Your task to perform on an android device: Show me productivity apps on the Play Store Image 0: 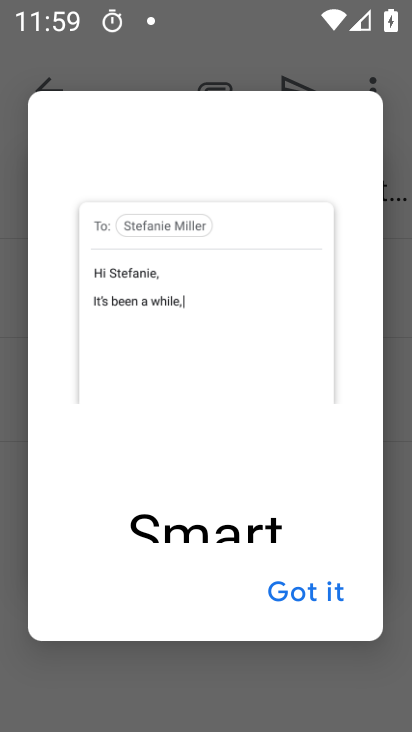
Step 0: press home button
Your task to perform on an android device: Show me productivity apps on the Play Store Image 1: 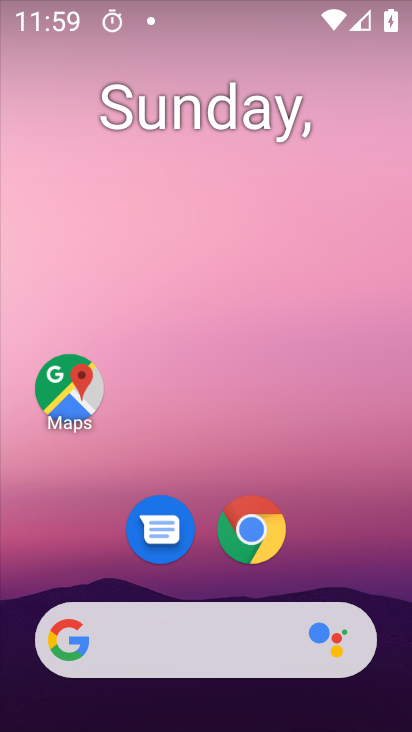
Step 1: drag from (372, 573) to (367, 186)
Your task to perform on an android device: Show me productivity apps on the Play Store Image 2: 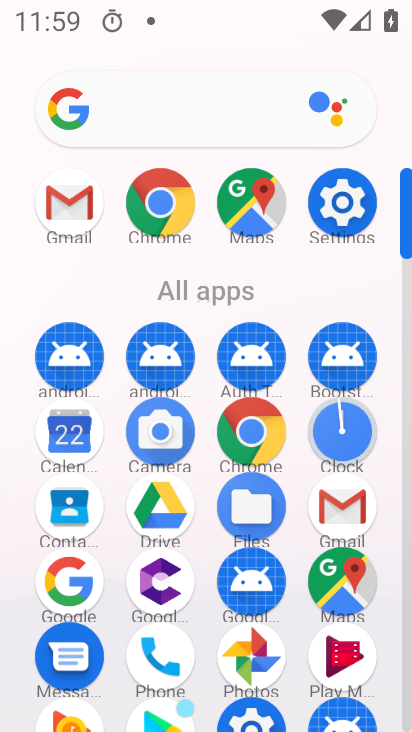
Step 2: drag from (386, 692) to (375, 465)
Your task to perform on an android device: Show me productivity apps on the Play Store Image 3: 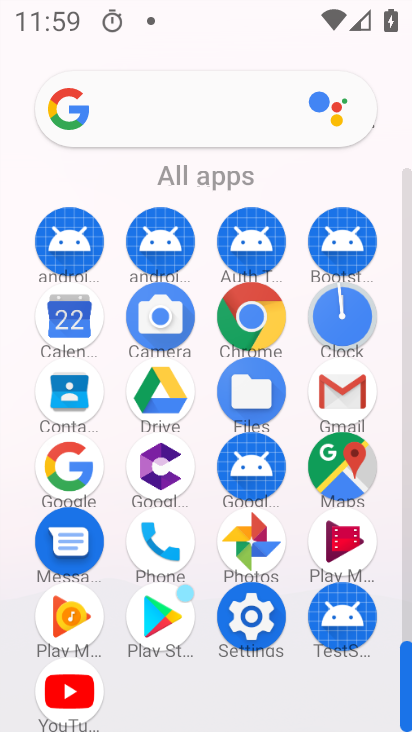
Step 3: click (149, 626)
Your task to perform on an android device: Show me productivity apps on the Play Store Image 4: 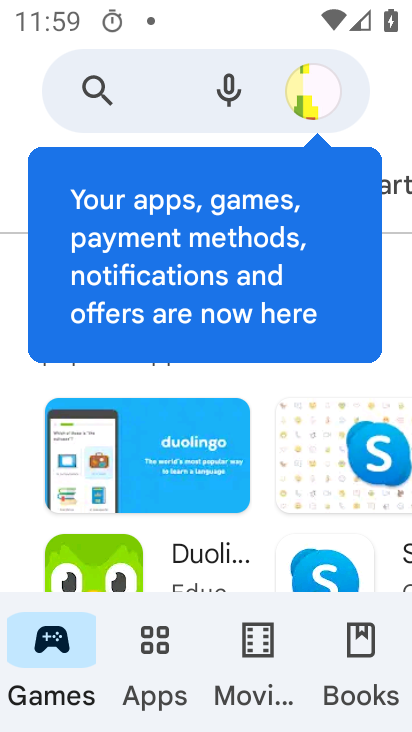
Step 4: click (165, 664)
Your task to perform on an android device: Show me productivity apps on the Play Store Image 5: 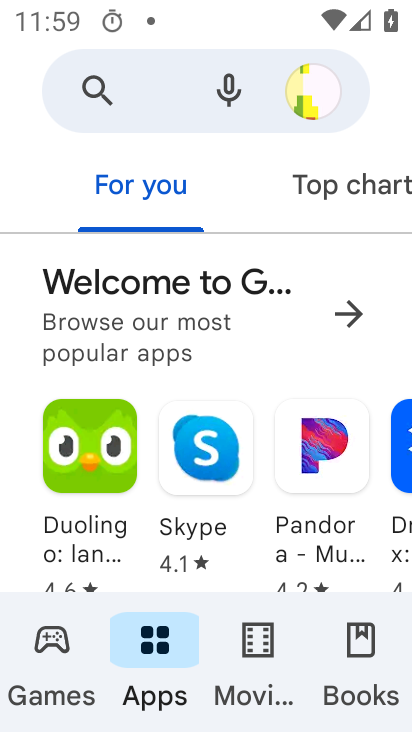
Step 5: click (340, 179)
Your task to perform on an android device: Show me productivity apps on the Play Store Image 6: 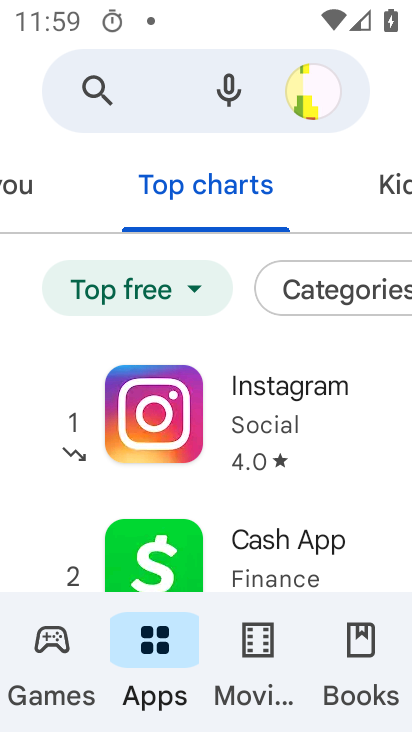
Step 6: task complete